Your task to perform on an android device: What's on my calendar today? Image 0: 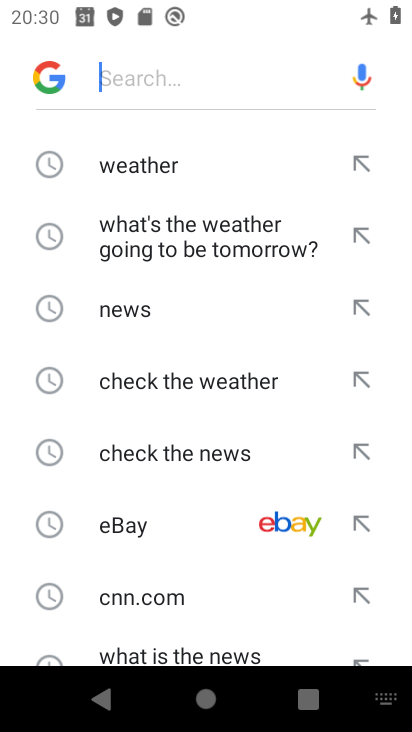
Step 0: press home button
Your task to perform on an android device: What's on my calendar today? Image 1: 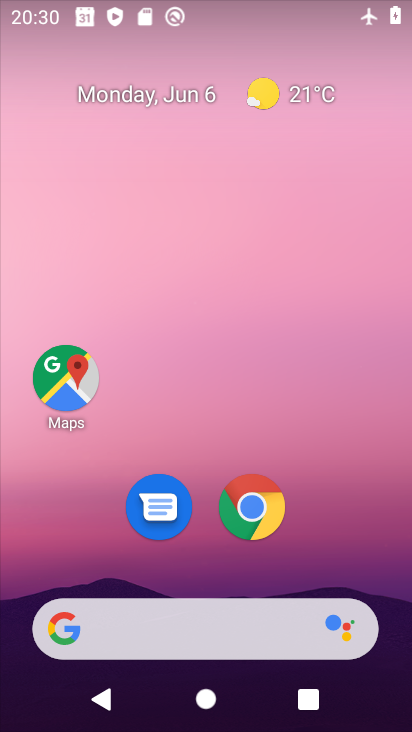
Step 1: drag from (202, 585) to (192, 8)
Your task to perform on an android device: What's on my calendar today? Image 2: 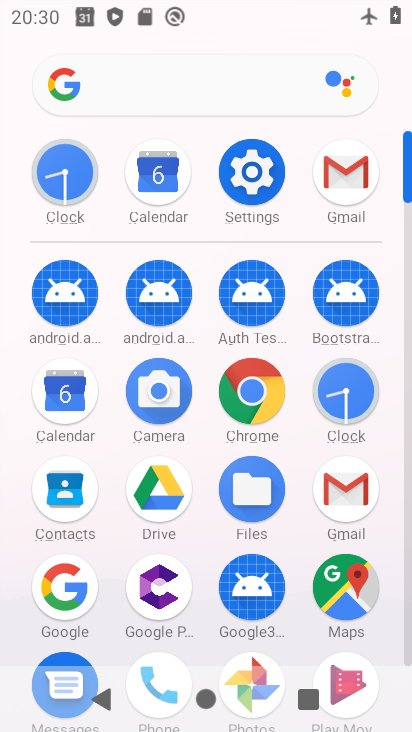
Step 2: click (163, 176)
Your task to perform on an android device: What's on my calendar today? Image 3: 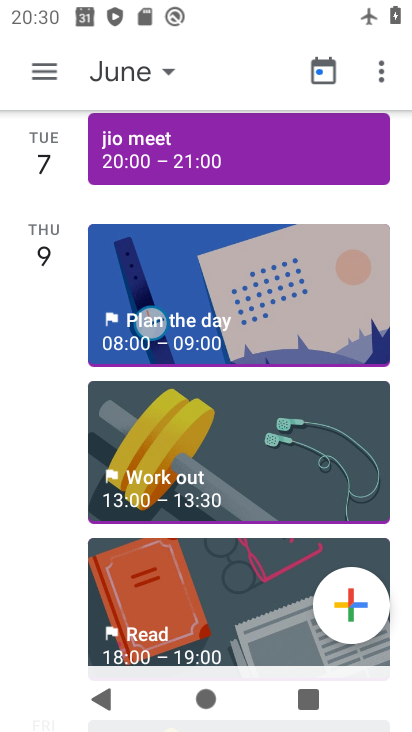
Step 3: task complete